Your task to perform on an android device: toggle javascript in the chrome app Image 0: 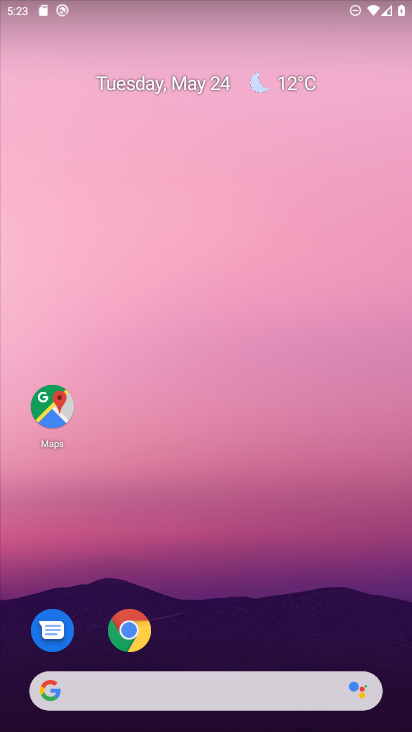
Step 0: click (124, 645)
Your task to perform on an android device: toggle javascript in the chrome app Image 1: 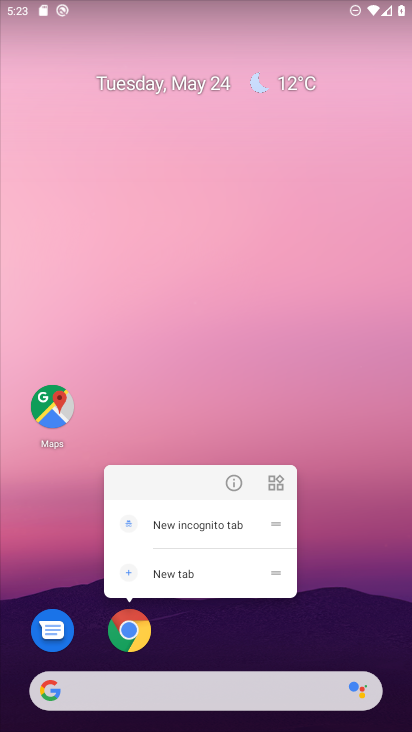
Step 1: click (128, 641)
Your task to perform on an android device: toggle javascript in the chrome app Image 2: 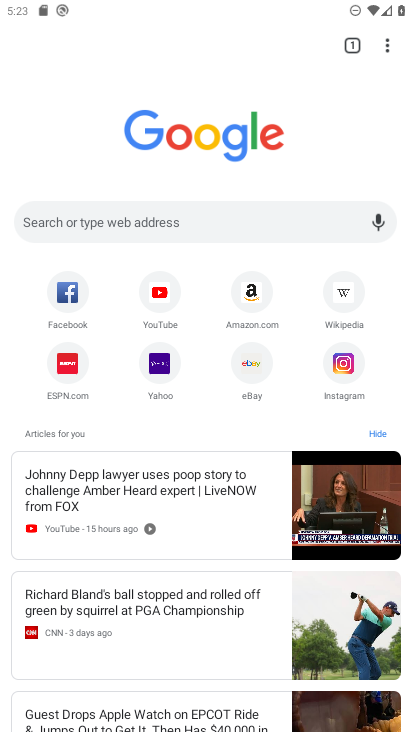
Step 2: click (384, 47)
Your task to perform on an android device: toggle javascript in the chrome app Image 3: 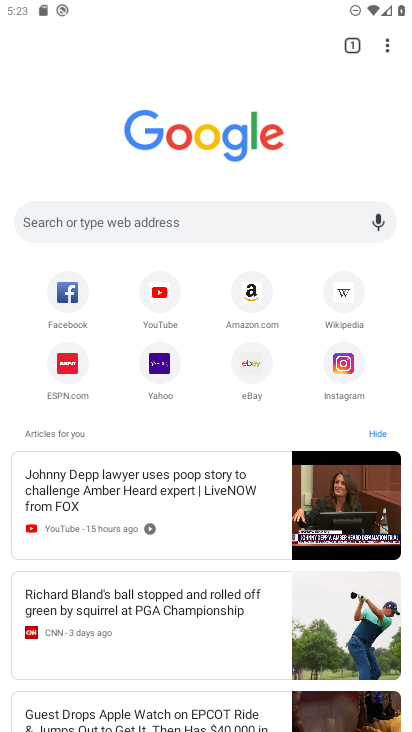
Step 3: click (386, 55)
Your task to perform on an android device: toggle javascript in the chrome app Image 4: 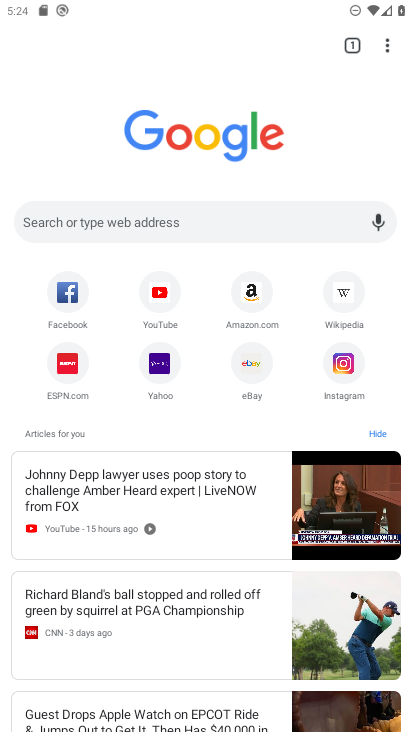
Step 4: click (388, 51)
Your task to perform on an android device: toggle javascript in the chrome app Image 5: 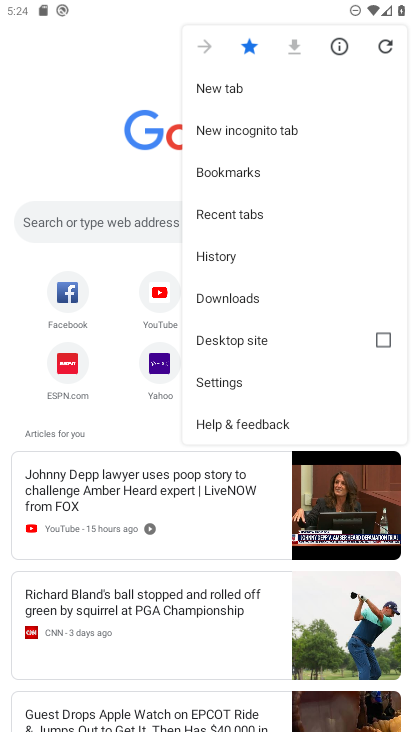
Step 5: click (247, 379)
Your task to perform on an android device: toggle javascript in the chrome app Image 6: 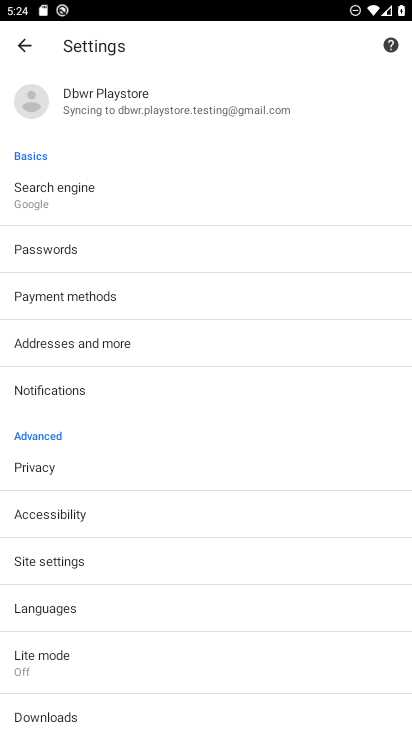
Step 6: click (45, 567)
Your task to perform on an android device: toggle javascript in the chrome app Image 7: 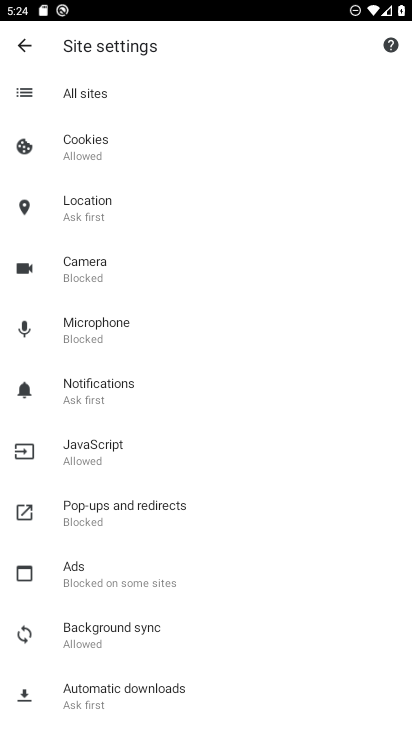
Step 7: click (101, 461)
Your task to perform on an android device: toggle javascript in the chrome app Image 8: 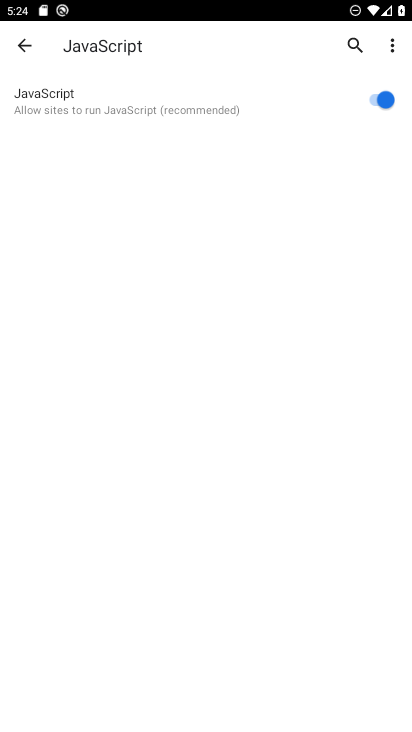
Step 8: click (364, 95)
Your task to perform on an android device: toggle javascript in the chrome app Image 9: 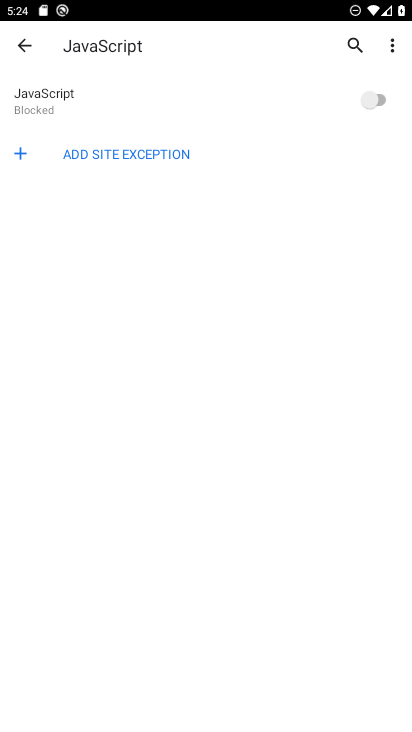
Step 9: task complete